Your task to perform on an android device: allow cookies in the chrome app Image 0: 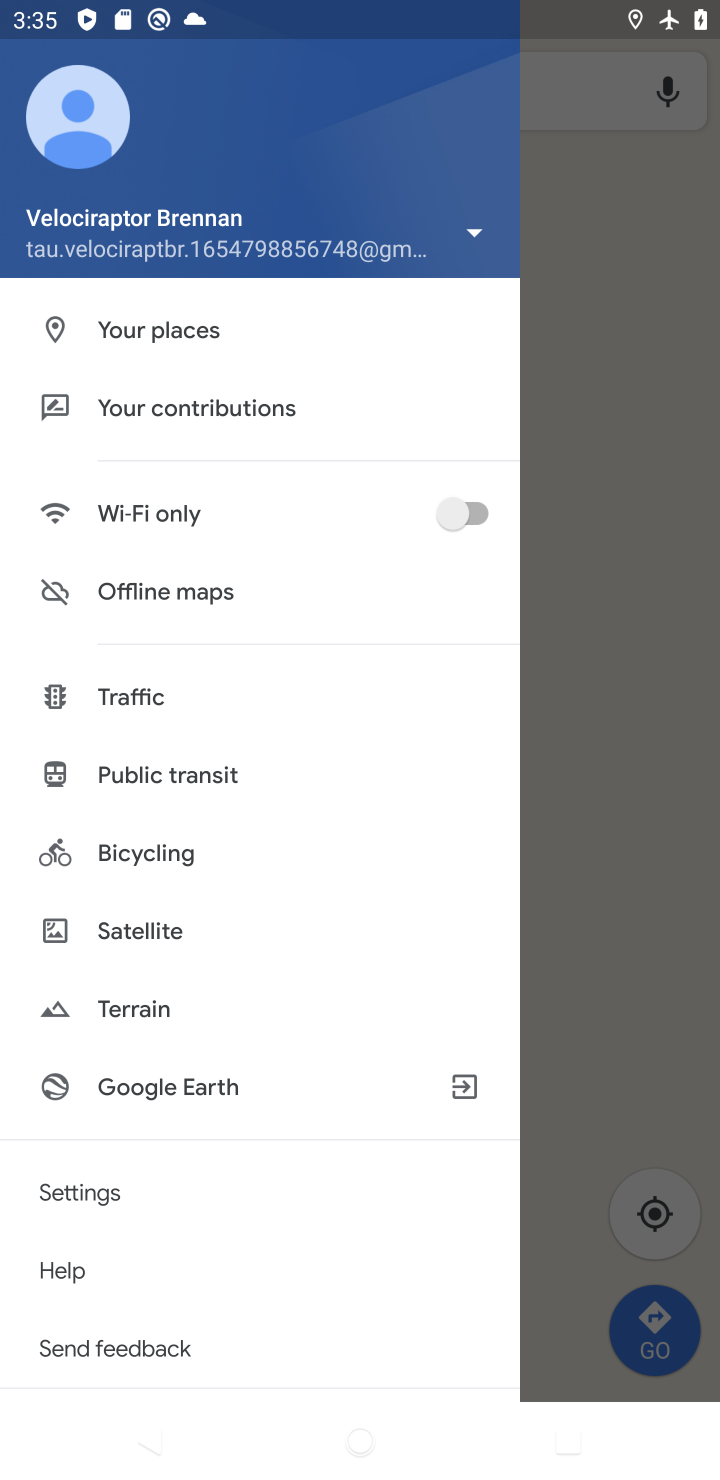
Step 0: press back button
Your task to perform on an android device: allow cookies in the chrome app Image 1: 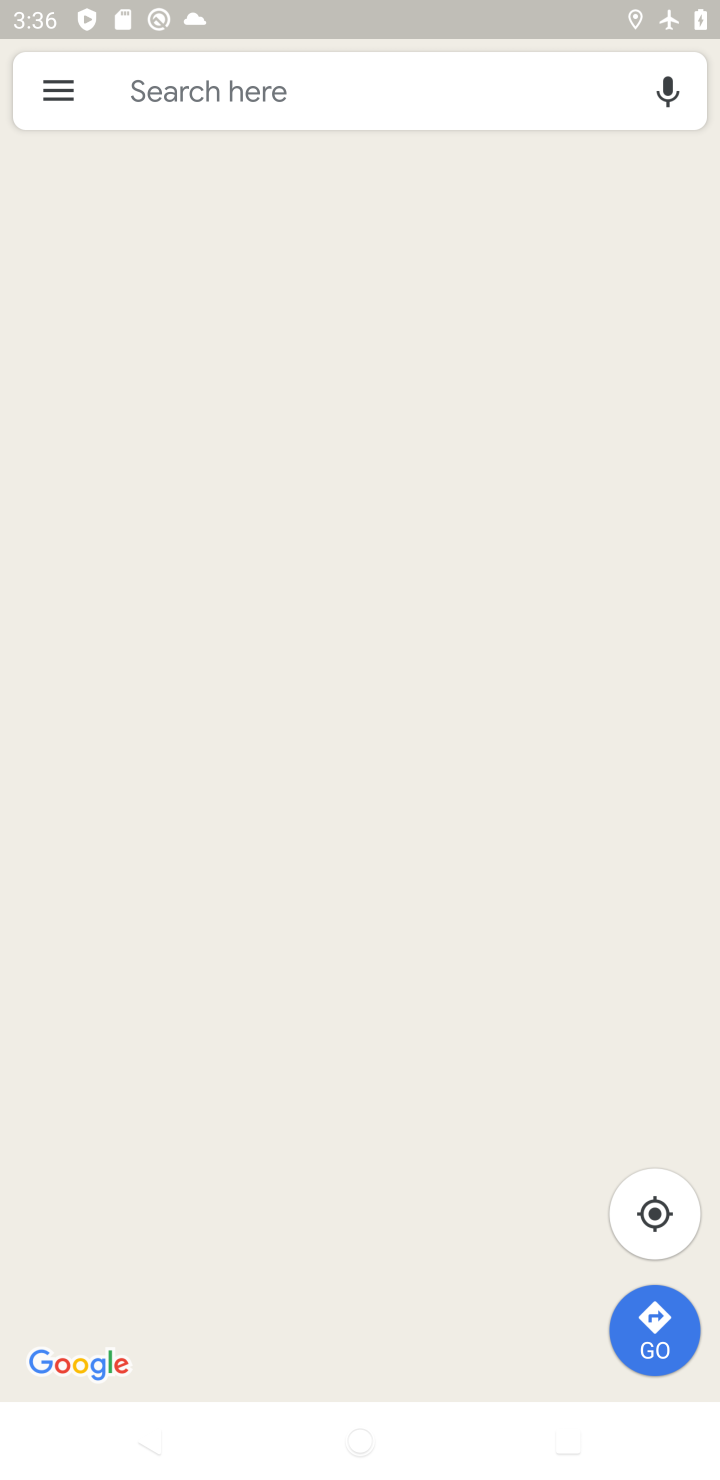
Step 1: press home button
Your task to perform on an android device: allow cookies in the chrome app Image 2: 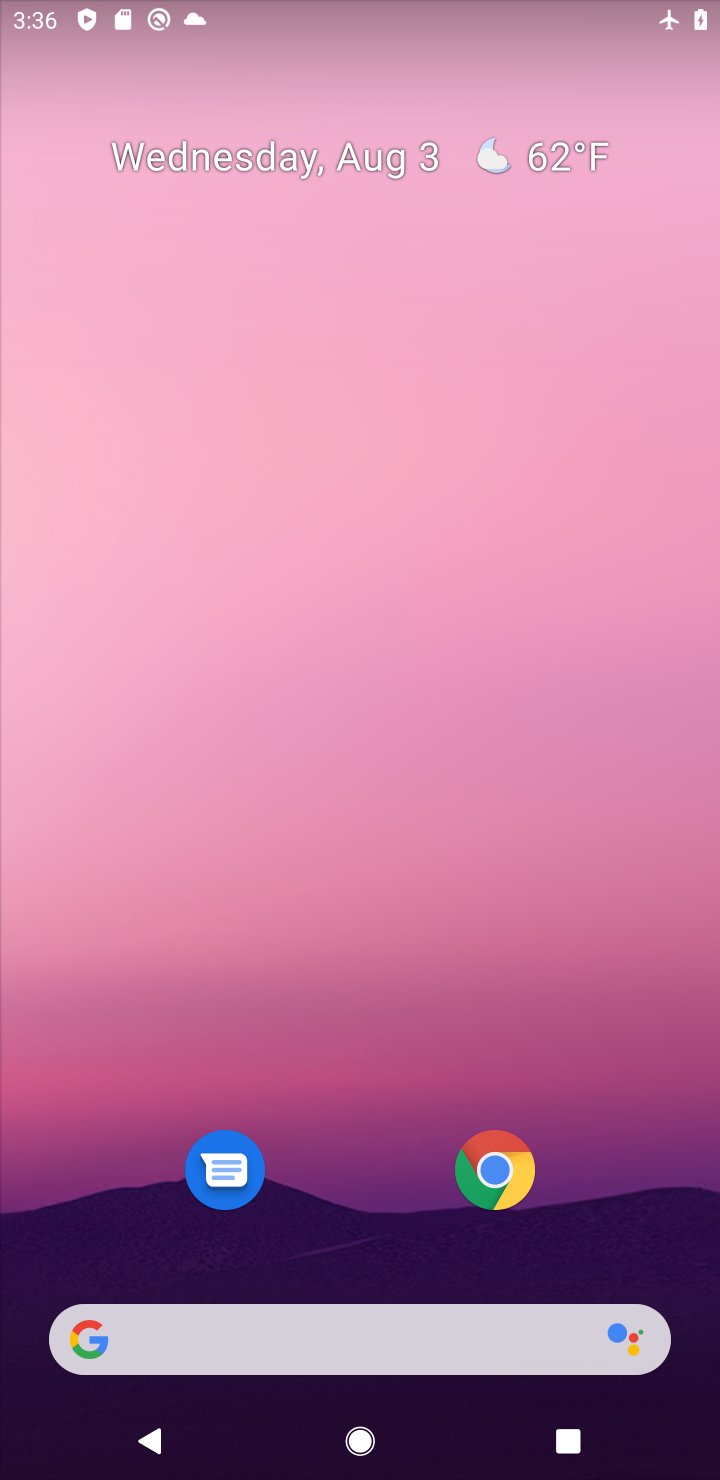
Step 2: click (506, 1183)
Your task to perform on an android device: allow cookies in the chrome app Image 3: 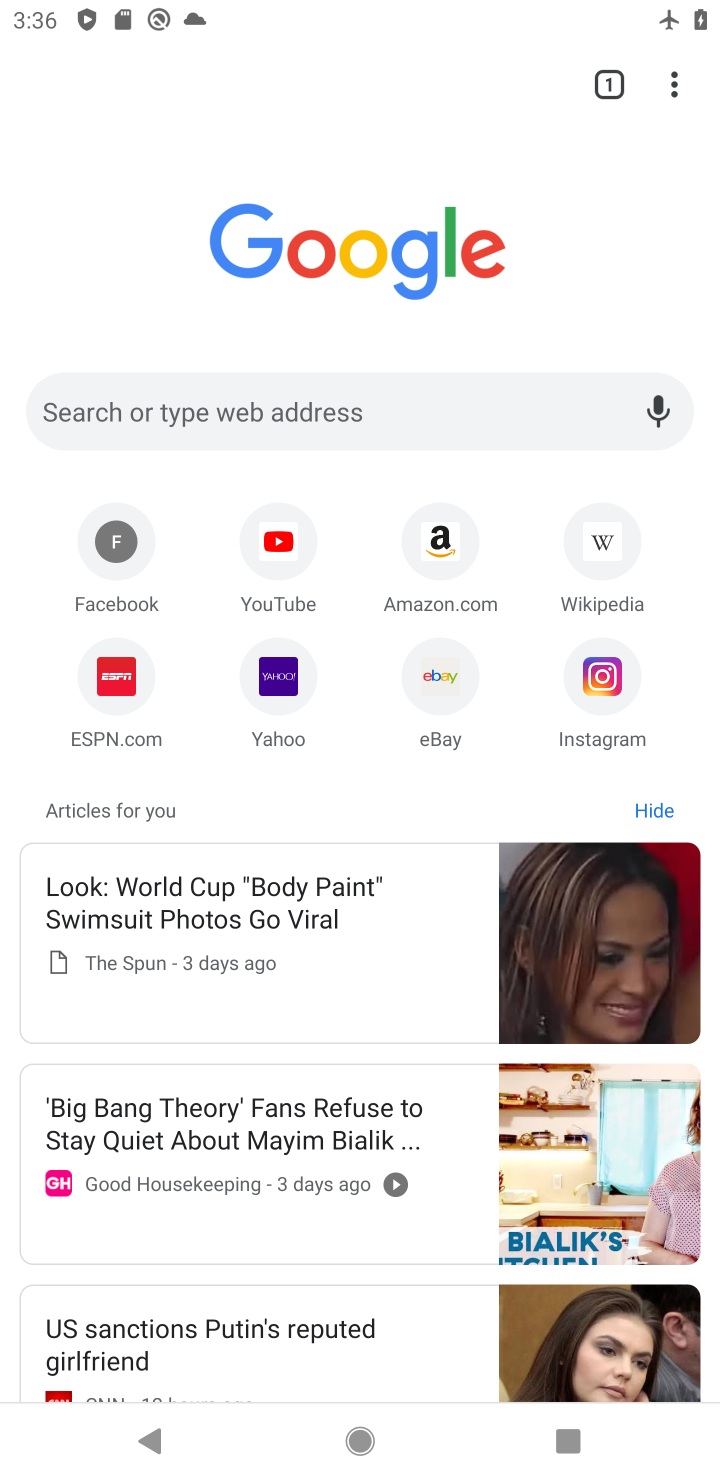
Step 3: click (678, 87)
Your task to perform on an android device: allow cookies in the chrome app Image 4: 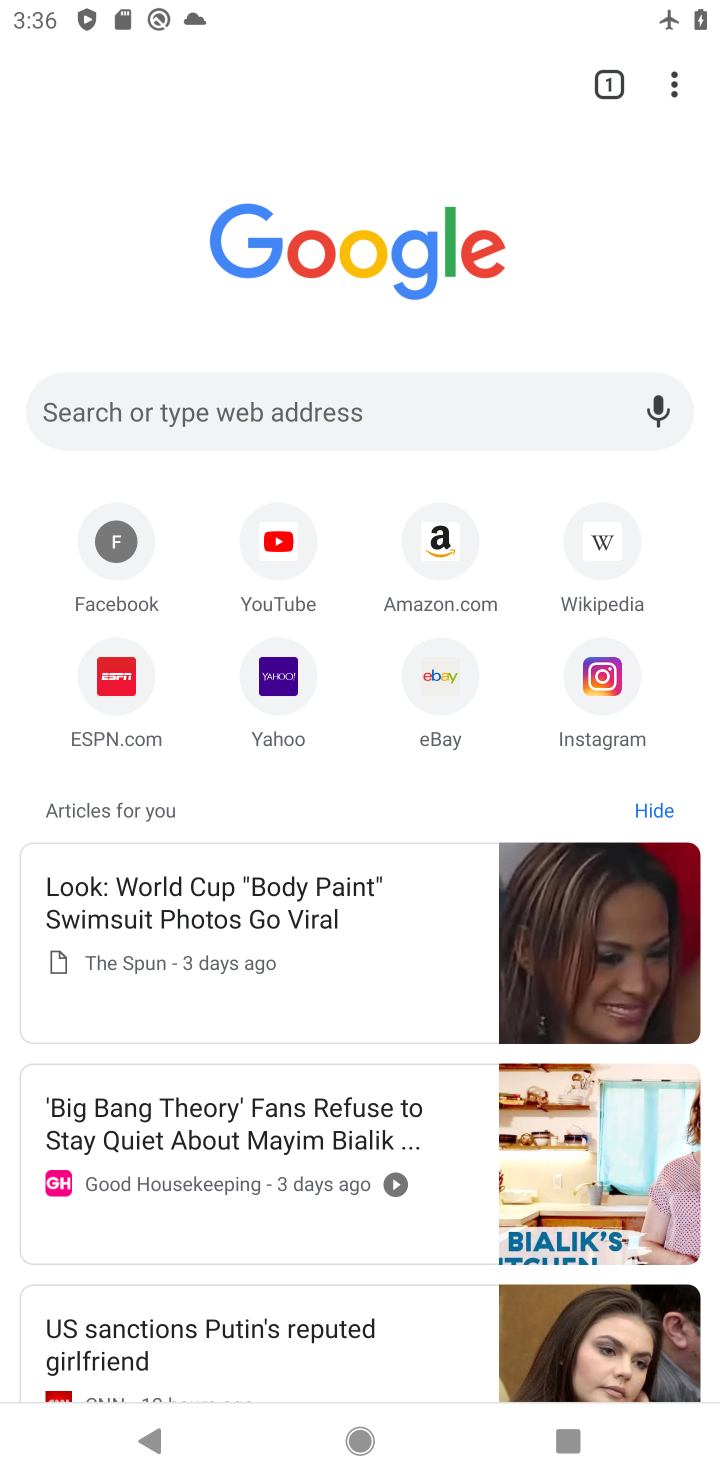
Step 4: click (678, 97)
Your task to perform on an android device: allow cookies in the chrome app Image 5: 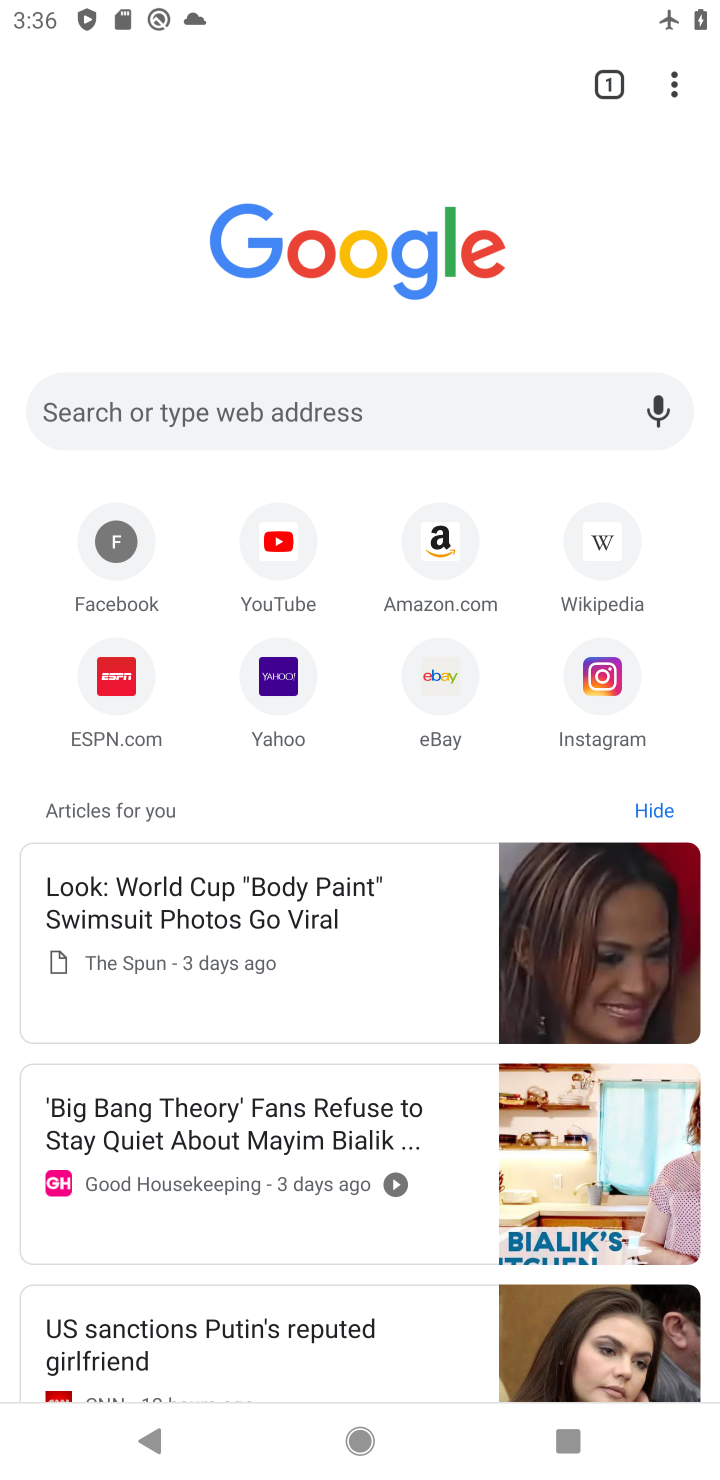
Step 5: click (677, 97)
Your task to perform on an android device: allow cookies in the chrome app Image 6: 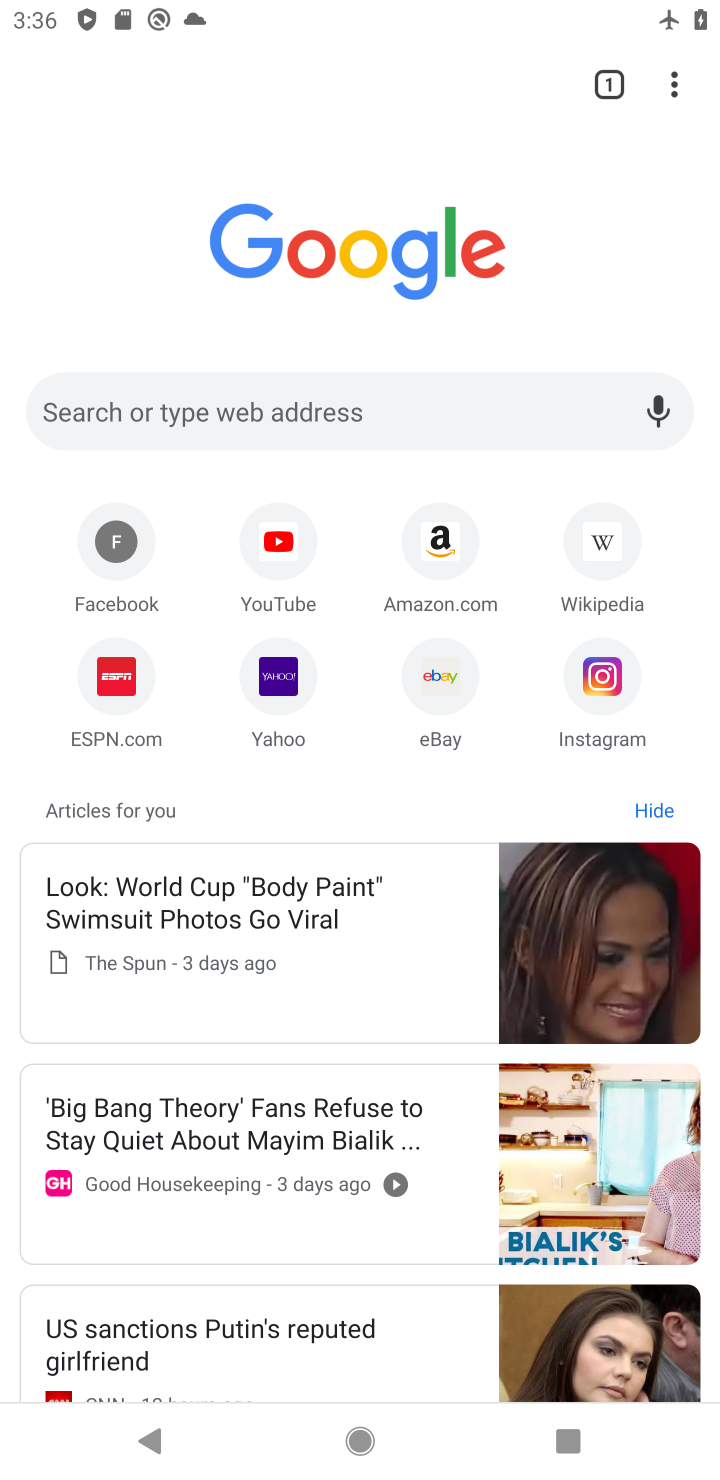
Step 6: click (677, 97)
Your task to perform on an android device: allow cookies in the chrome app Image 7: 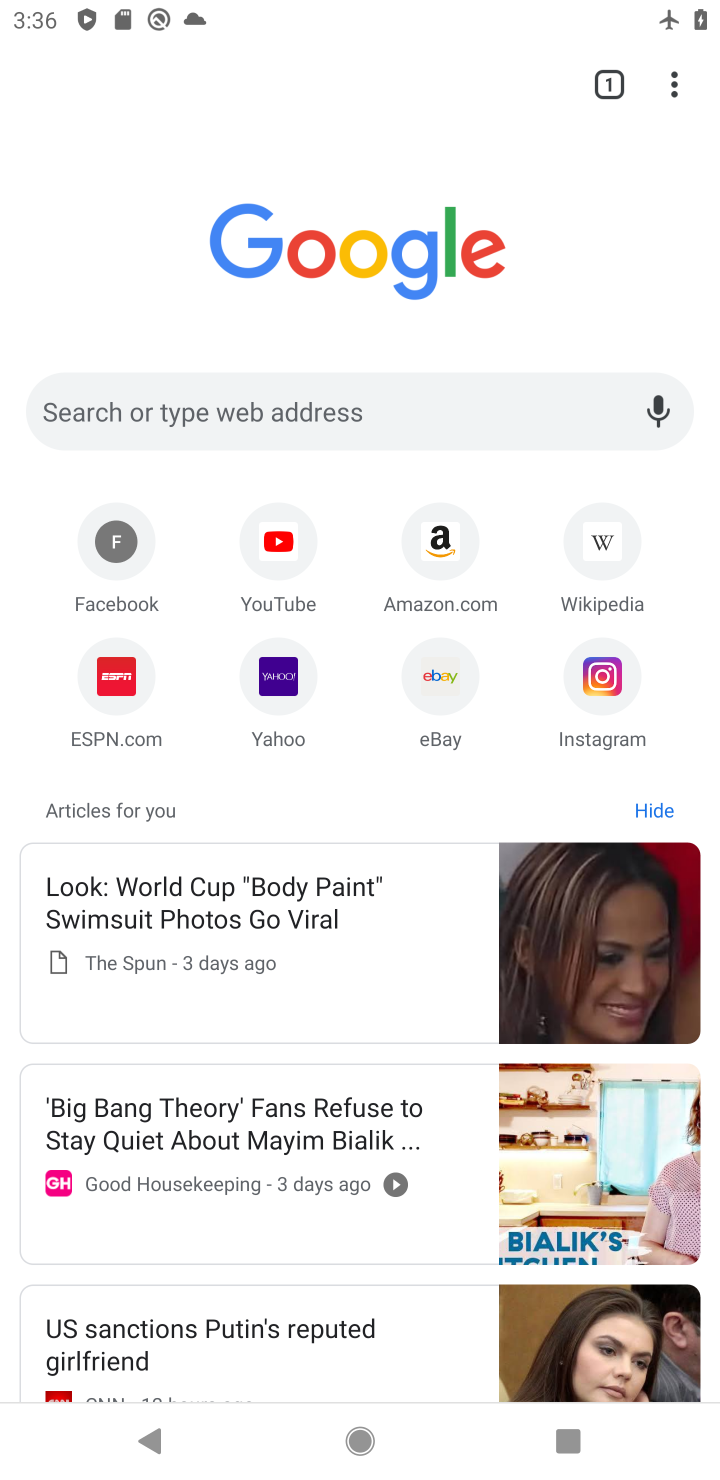
Step 7: click (677, 97)
Your task to perform on an android device: allow cookies in the chrome app Image 8: 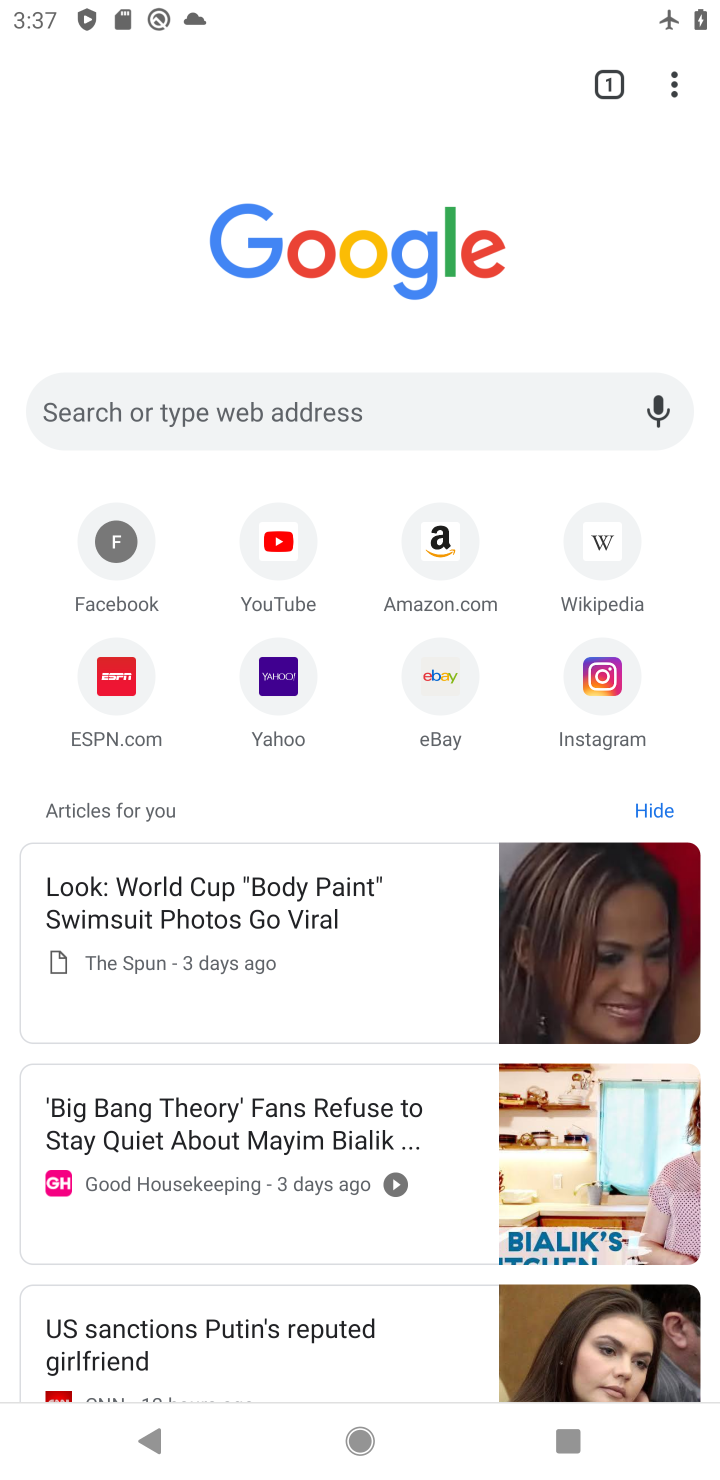
Step 8: click (677, 75)
Your task to perform on an android device: allow cookies in the chrome app Image 9: 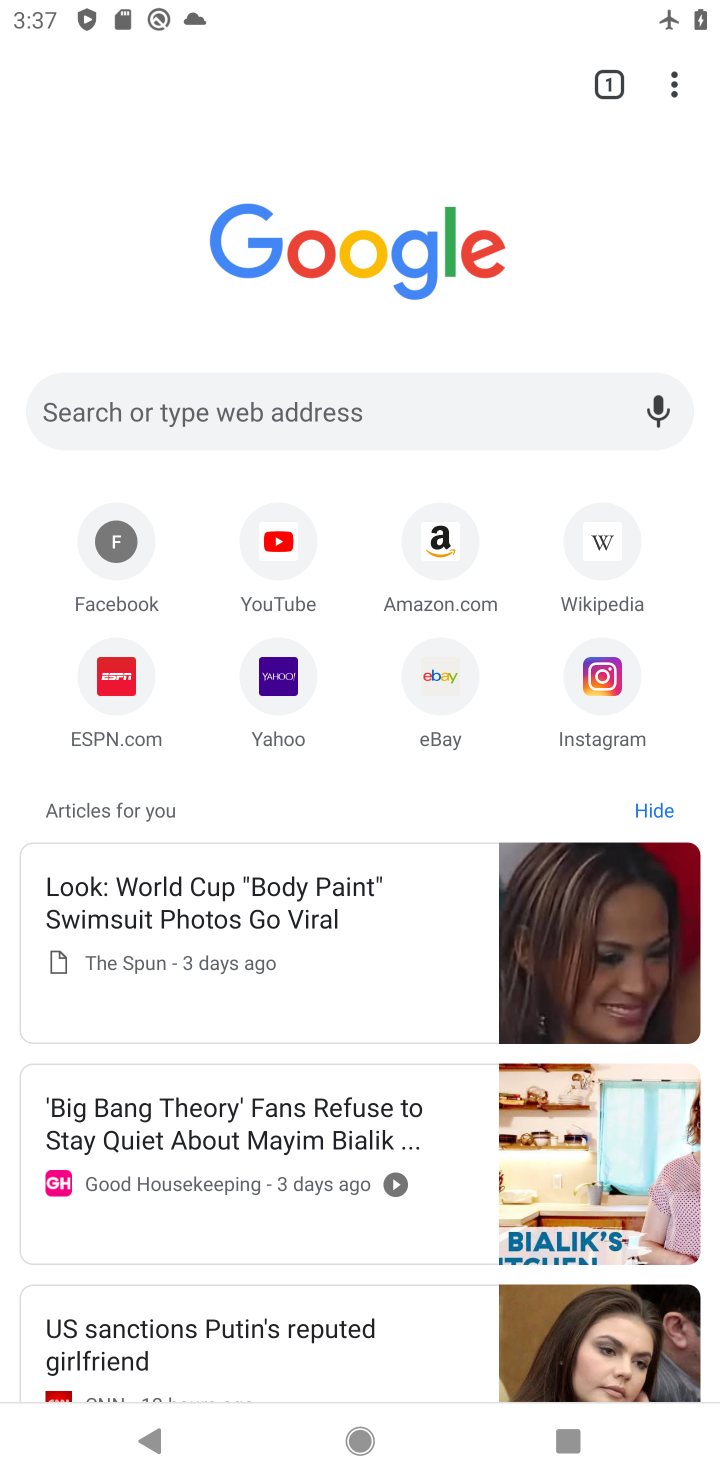
Step 9: click (677, 90)
Your task to perform on an android device: allow cookies in the chrome app Image 10: 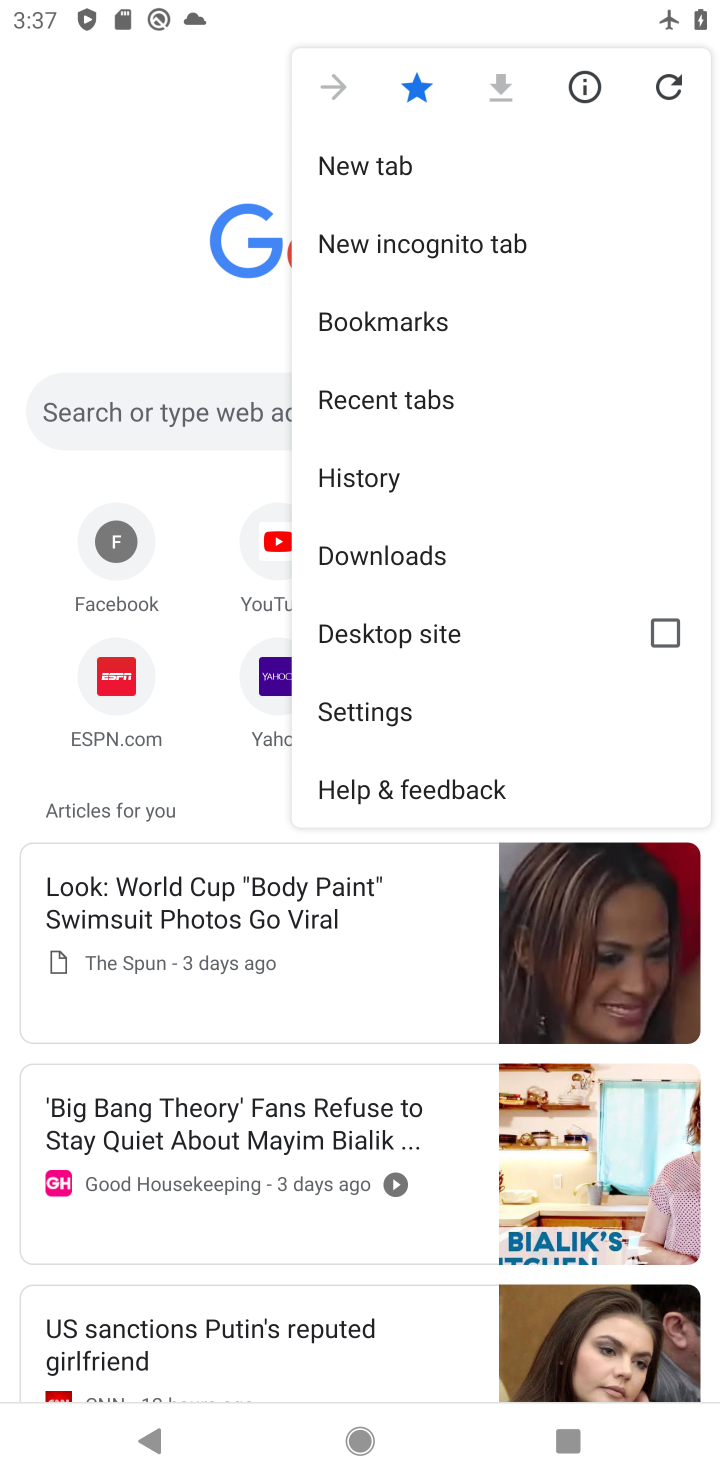
Step 10: click (368, 704)
Your task to perform on an android device: allow cookies in the chrome app Image 11: 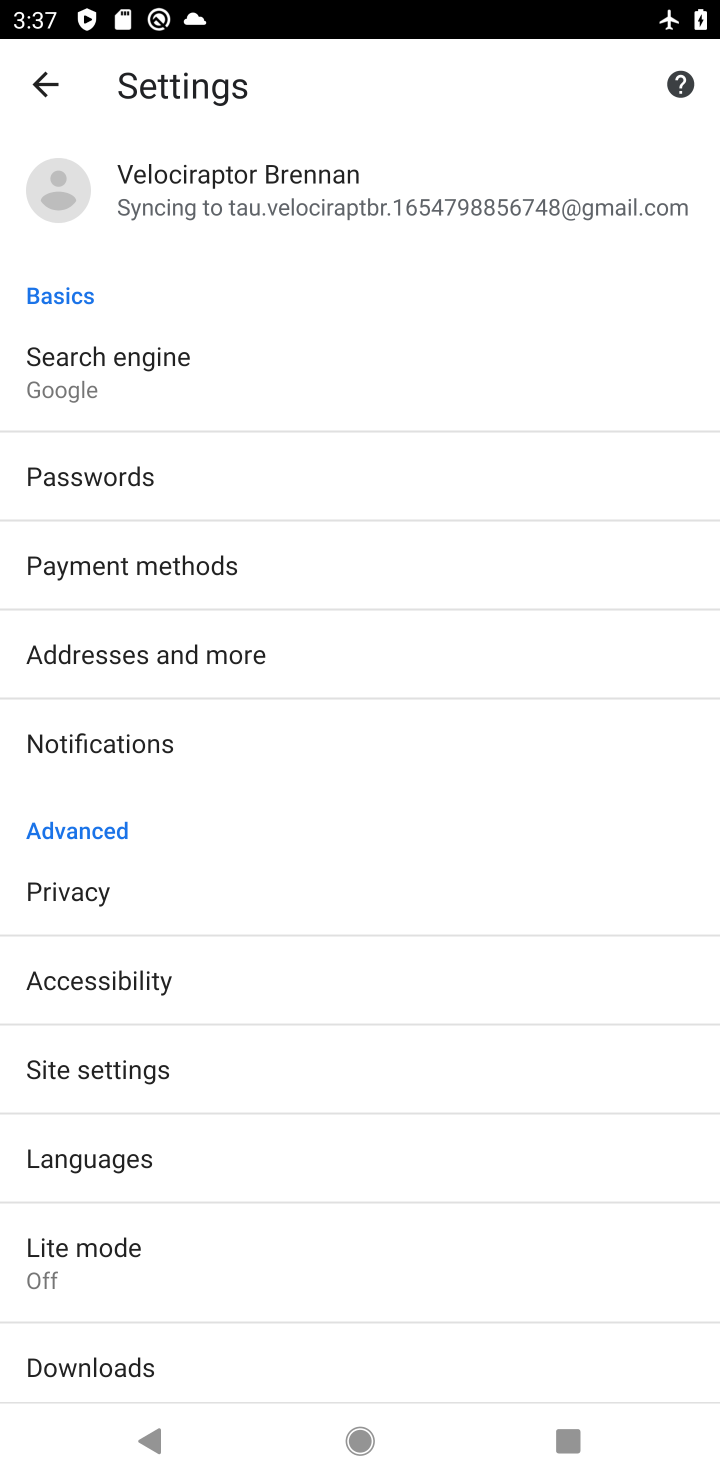
Step 11: click (136, 1072)
Your task to perform on an android device: allow cookies in the chrome app Image 12: 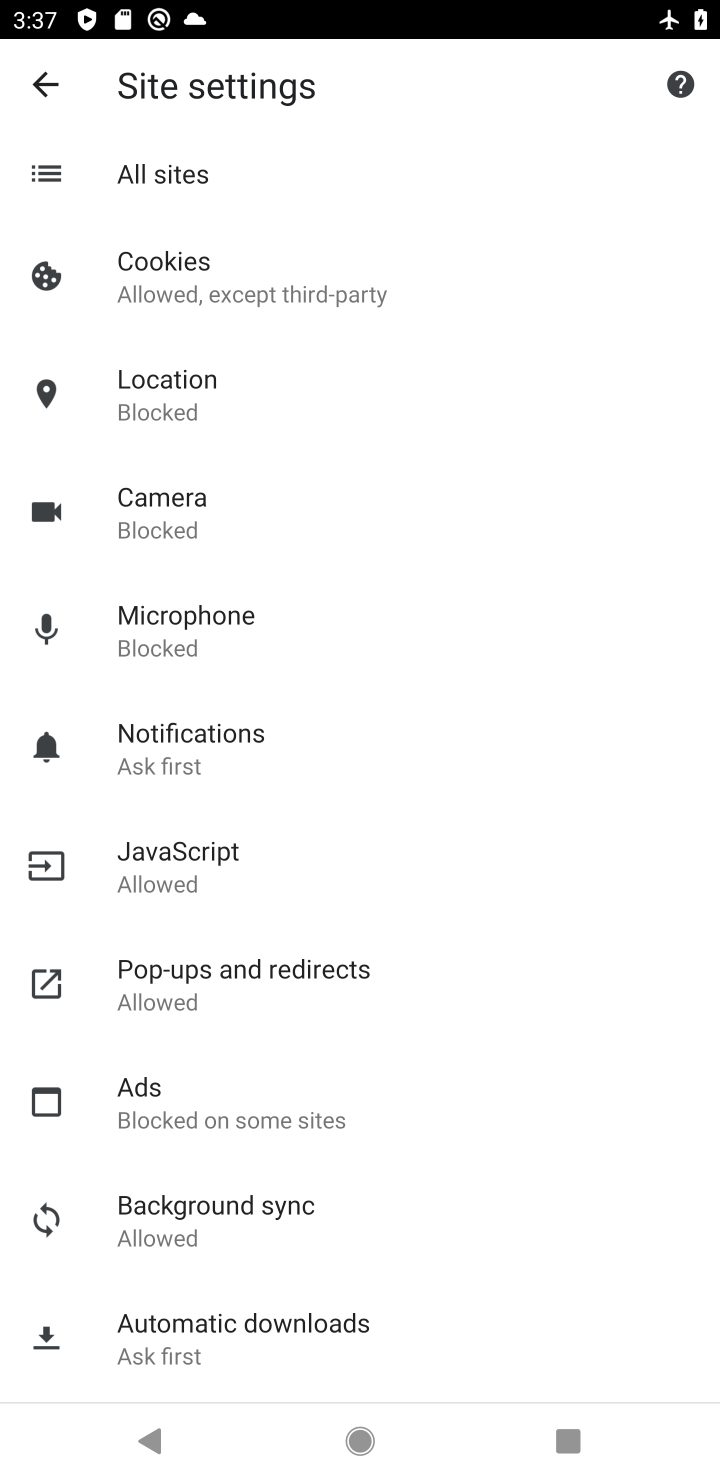
Step 12: click (301, 280)
Your task to perform on an android device: allow cookies in the chrome app Image 13: 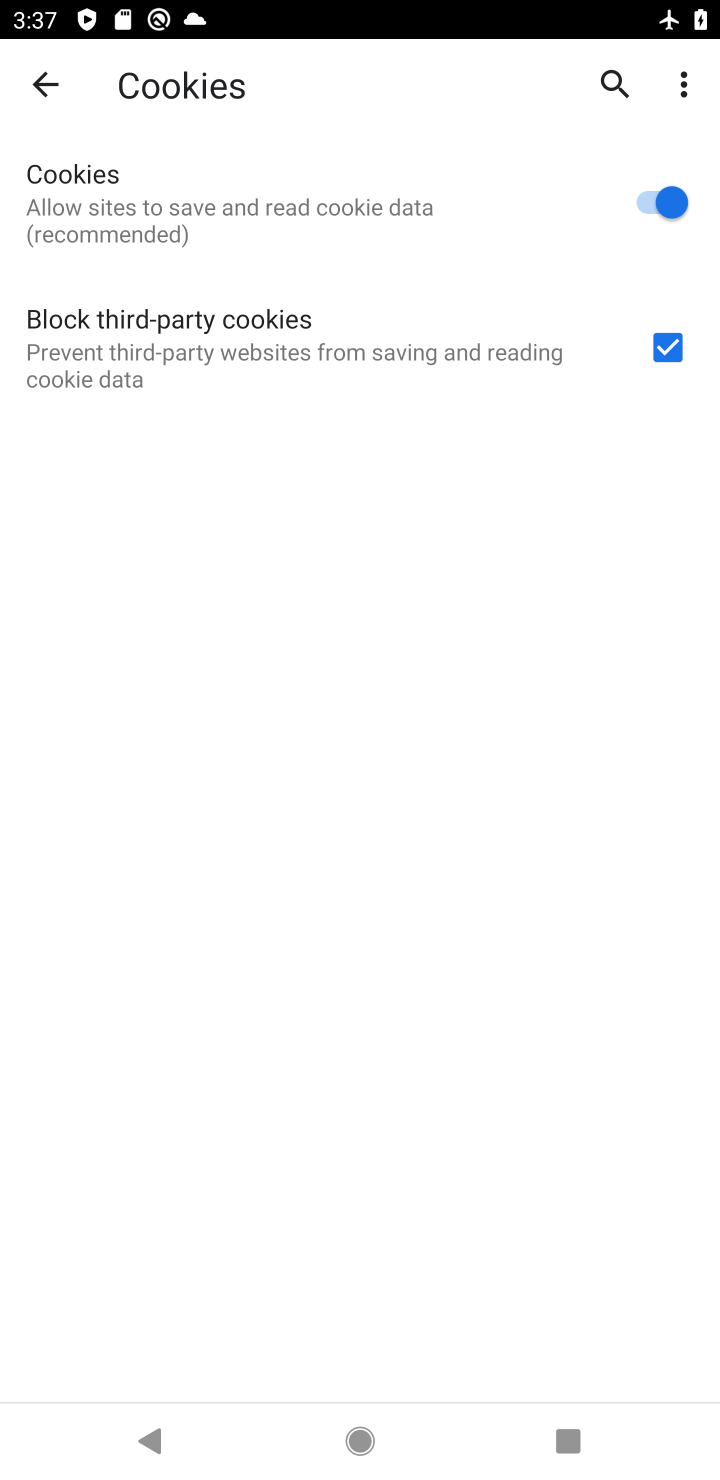
Step 13: task complete